Your task to perform on an android device: What's the weather going to be this weekend? Image 0: 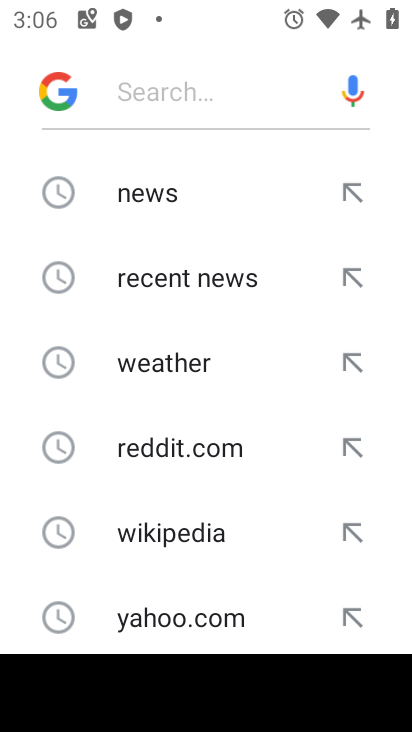
Step 0: click (155, 361)
Your task to perform on an android device: What's the weather going to be this weekend? Image 1: 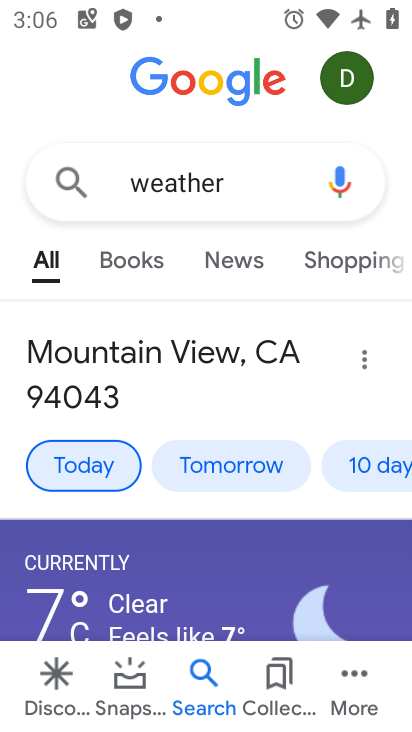
Step 1: click (375, 457)
Your task to perform on an android device: What's the weather going to be this weekend? Image 2: 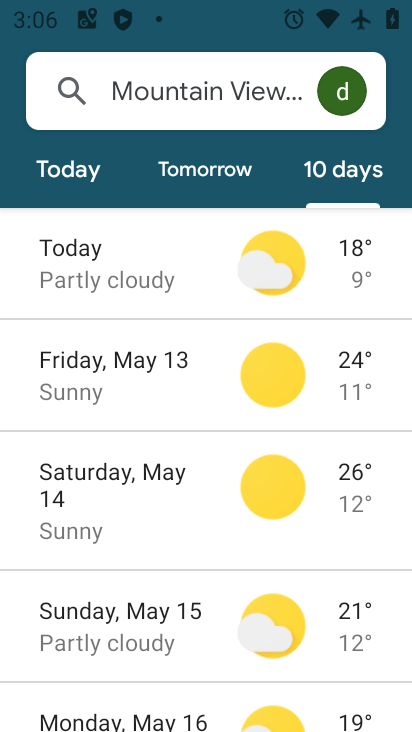
Step 2: task complete